Your task to perform on an android device: Open accessibility settings Image 0: 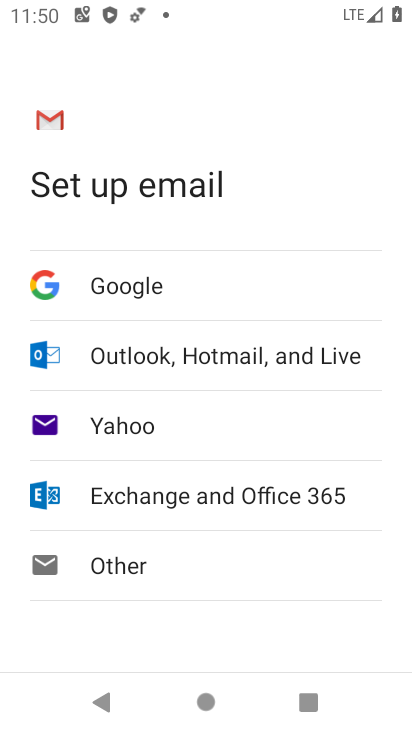
Step 0: press home button
Your task to perform on an android device: Open accessibility settings Image 1: 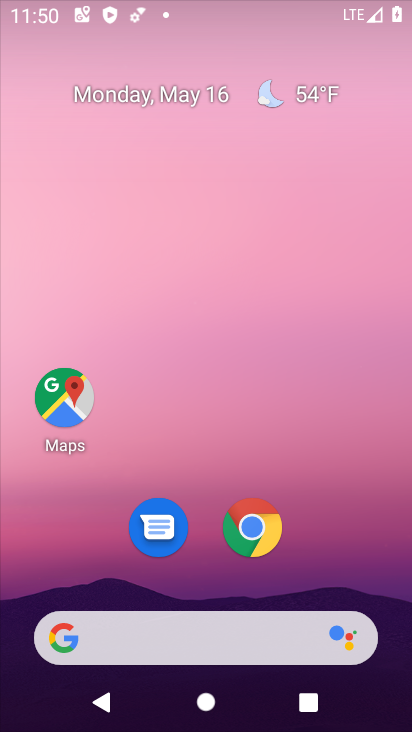
Step 1: drag from (226, 668) to (142, 223)
Your task to perform on an android device: Open accessibility settings Image 2: 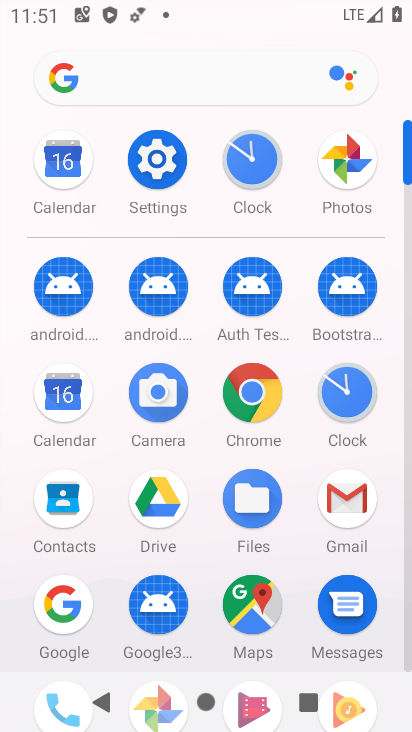
Step 2: click (163, 186)
Your task to perform on an android device: Open accessibility settings Image 3: 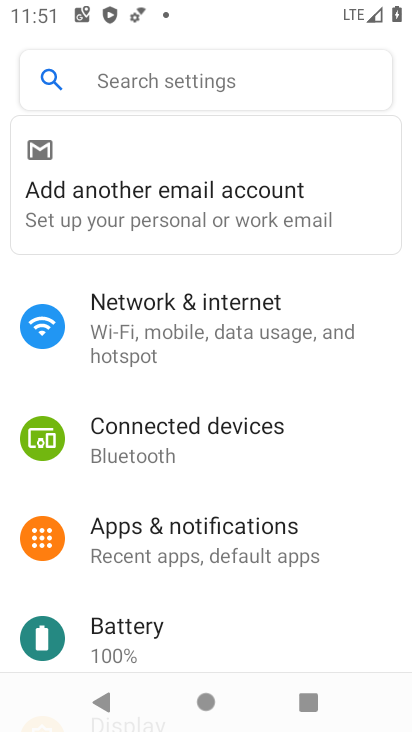
Step 3: click (138, 79)
Your task to perform on an android device: Open accessibility settings Image 4: 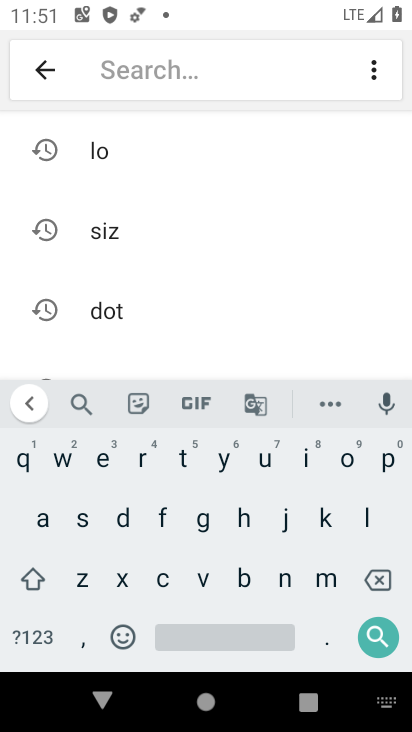
Step 4: click (33, 542)
Your task to perform on an android device: Open accessibility settings Image 5: 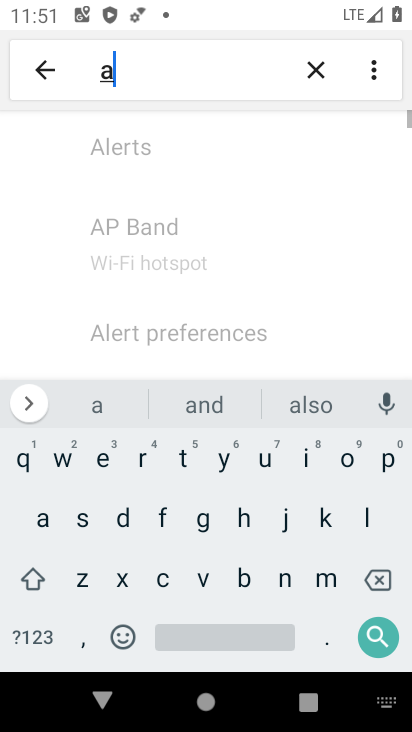
Step 5: click (159, 583)
Your task to perform on an android device: Open accessibility settings Image 6: 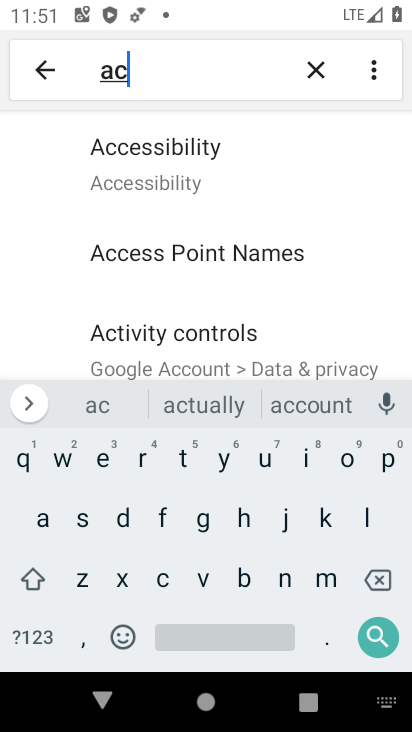
Step 6: click (118, 192)
Your task to perform on an android device: Open accessibility settings Image 7: 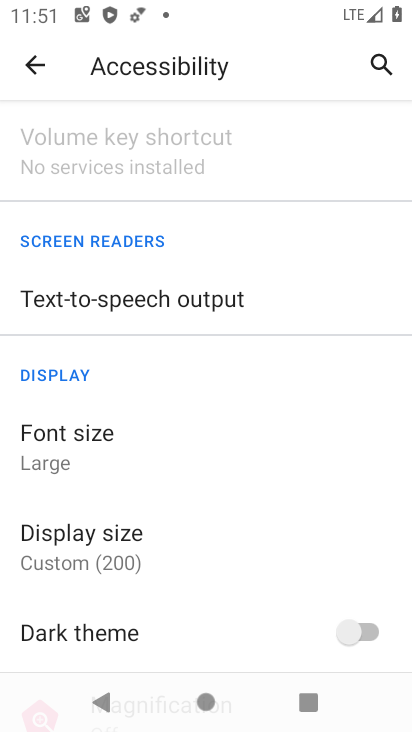
Step 7: task complete